Your task to perform on an android device: Open battery settings Image 0: 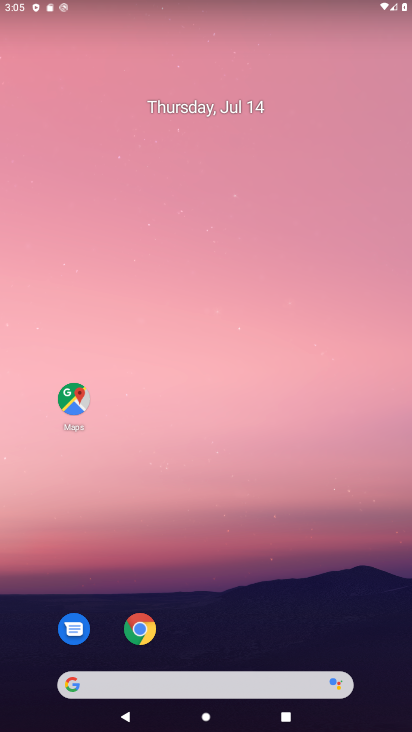
Step 0: drag from (313, 595) to (328, 110)
Your task to perform on an android device: Open battery settings Image 1: 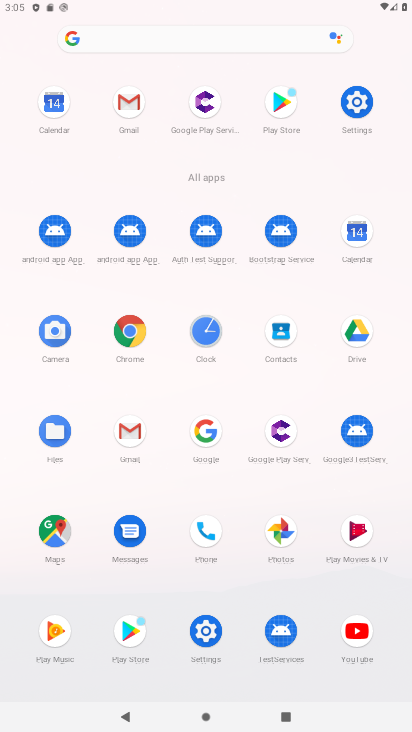
Step 1: click (349, 95)
Your task to perform on an android device: Open battery settings Image 2: 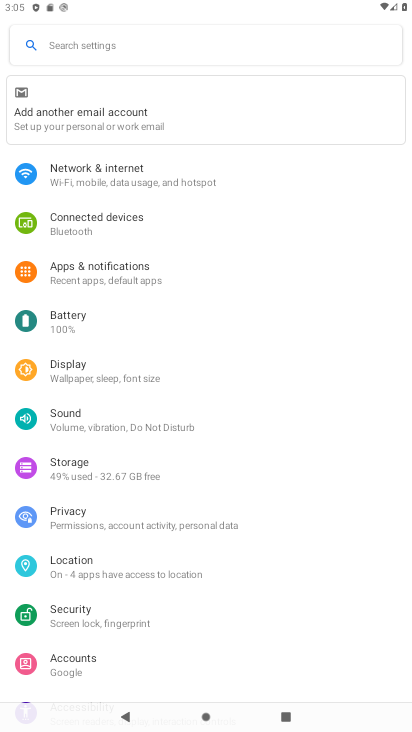
Step 2: click (61, 316)
Your task to perform on an android device: Open battery settings Image 3: 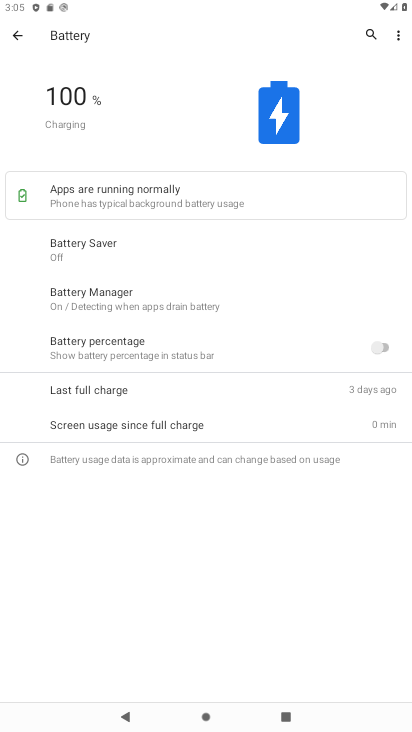
Step 3: task complete